Your task to perform on an android device: turn off javascript in the chrome app Image 0: 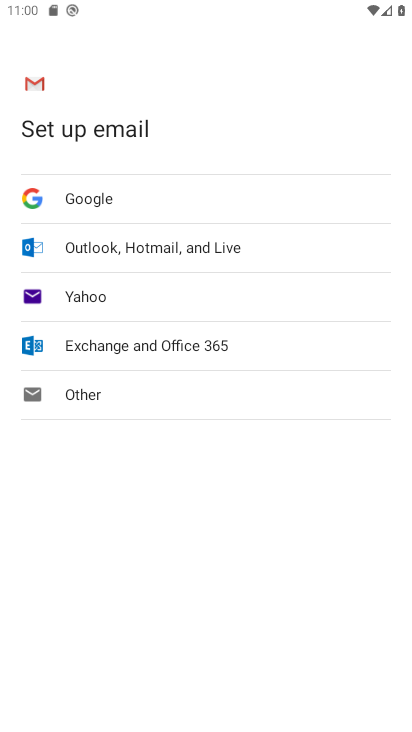
Step 0: press home button
Your task to perform on an android device: turn off javascript in the chrome app Image 1: 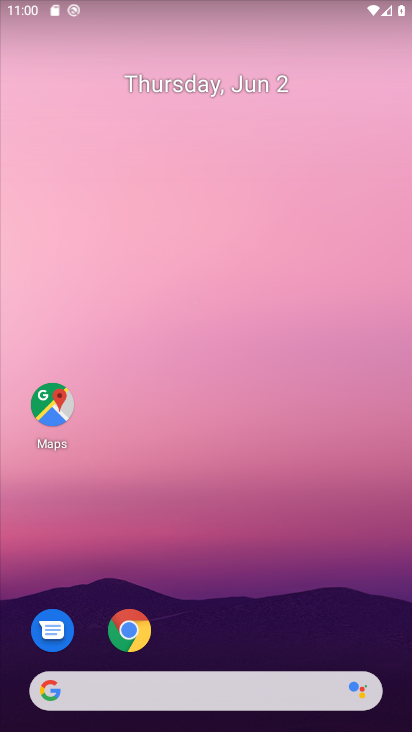
Step 1: click (140, 637)
Your task to perform on an android device: turn off javascript in the chrome app Image 2: 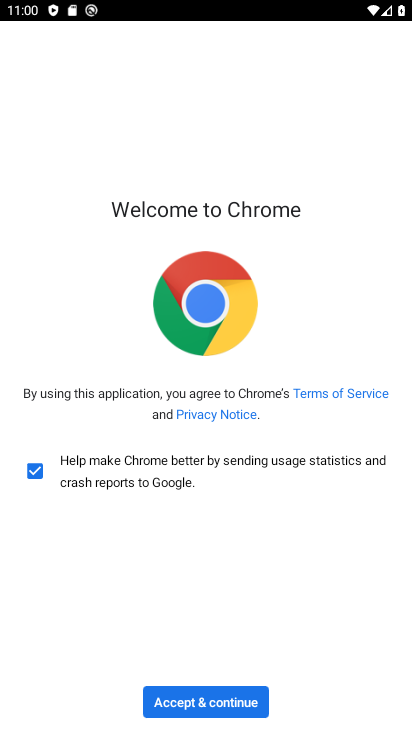
Step 2: click (237, 709)
Your task to perform on an android device: turn off javascript in the chrome app Image 3: 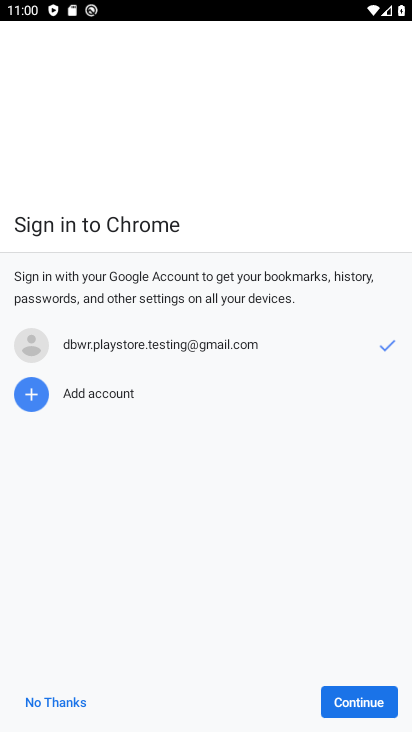
Step 3: click (358, 700)
Your task to perform on an android device: turn off javascript in the chrome app Image 4: 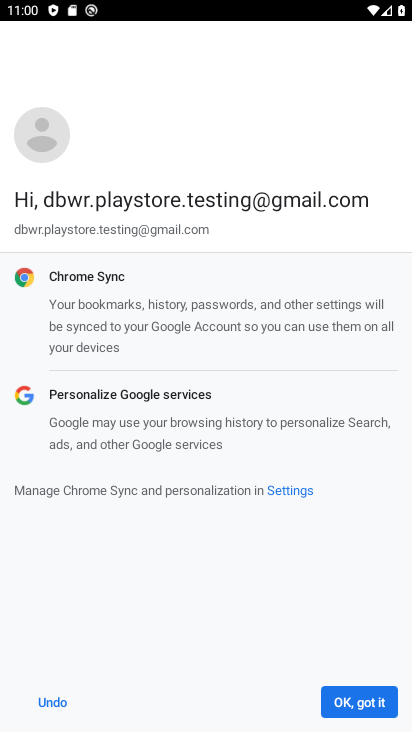
Step 4: click (375, 707)
Your task to perform on an android device: turn off javascript in the chrome app Image 5: 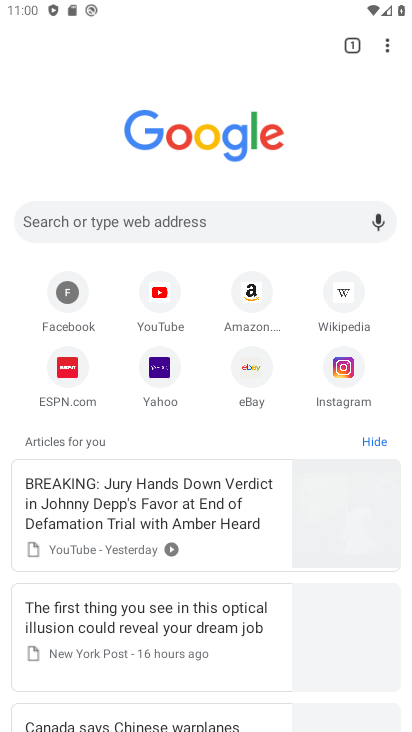
Step 5: drag from (389, 45) to (292, 391)
Your task to perform on an android device: turn off javascript in the chrome app Image 6: 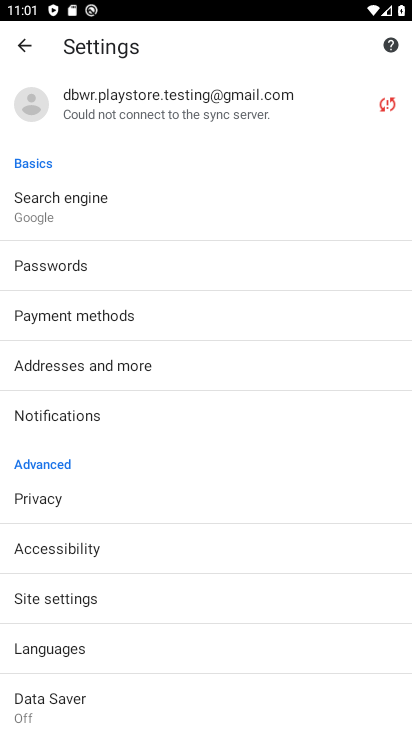
Step 6: click (147, 588)
Your task to perform on an android device: turn off javascript in the chrome app Image 7: 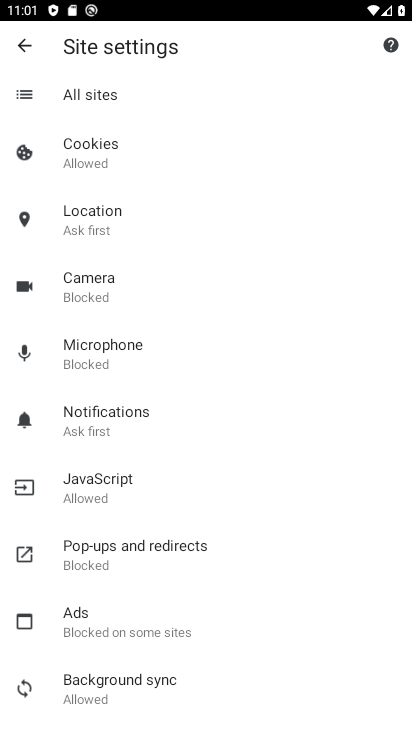
Step 7: click (159, 499)
Your task to perform on an android device: turn off javascript in the chrome app Image 8: 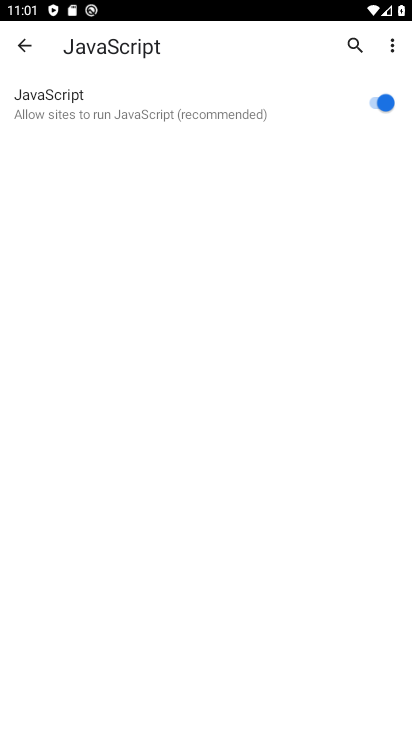
Step 8: click (357, 97)
Your task to perform on an android device: turn off javascript in the chrome app Image 9: 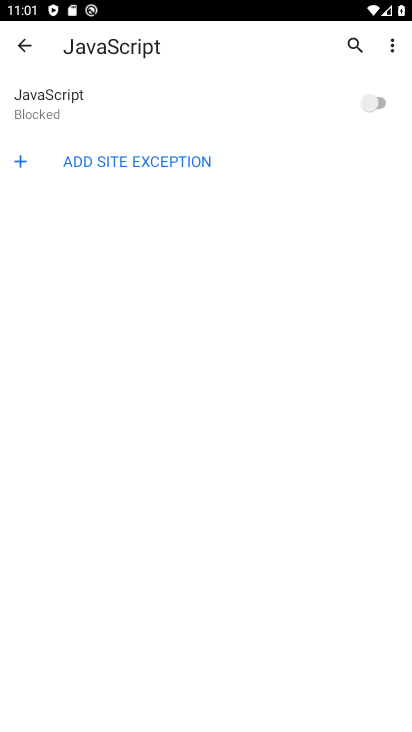
Step 9: task complete